Your task to perform on an android device: Go to Wikipedia Image 0: 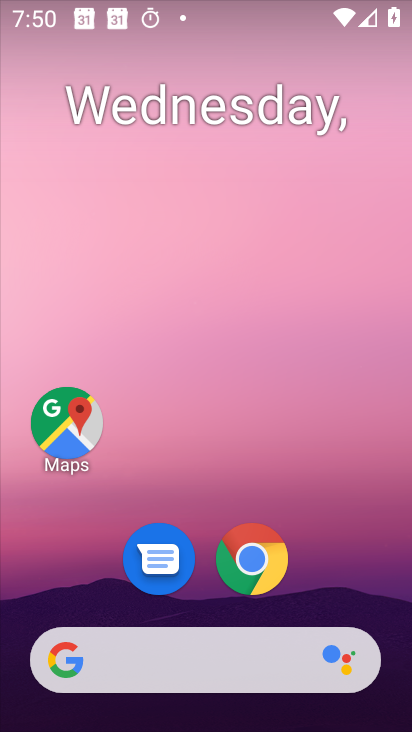
Step 0: click (261, 567)
Your task to perform on an android device: Go to Wikipedia Image 1: 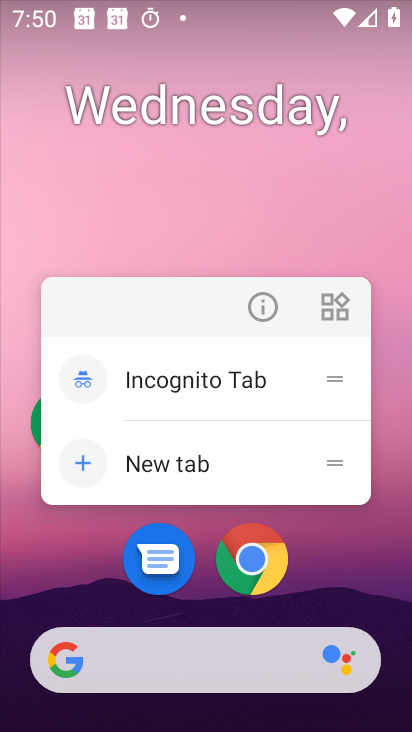
Step 1: click (258, 569)
Your task to perform on an android device: Go to Wikipedia Image 2: 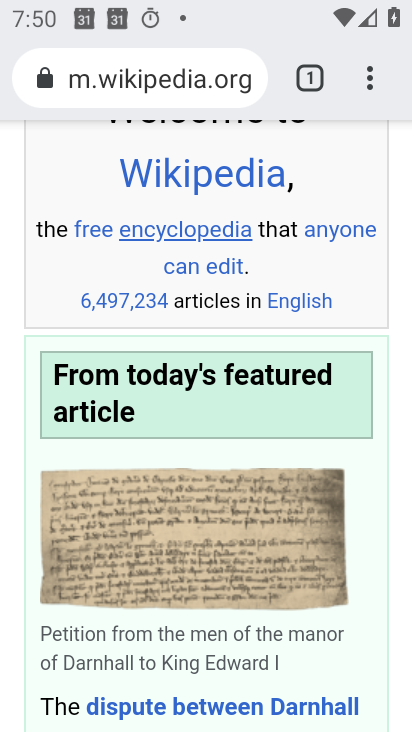
Step 2: task complete